Your task to perform on an android device: Open calendar and show me the third week of next month Image 0: 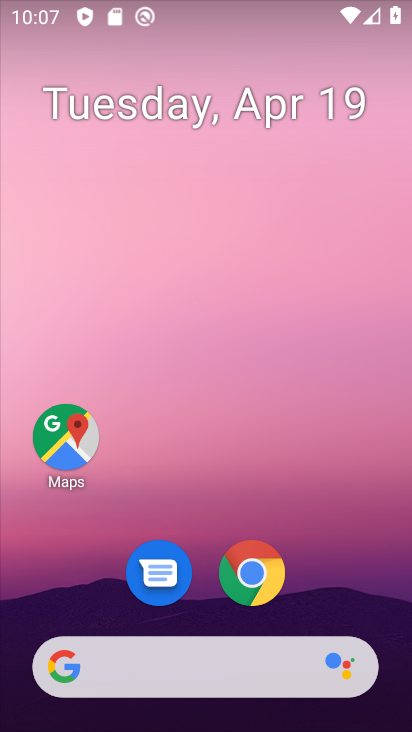
Step 0: drag from (354, 575) to (346, 103)
Your task to perform on an android device: Open calendar and show me the third week of next month Image 1: 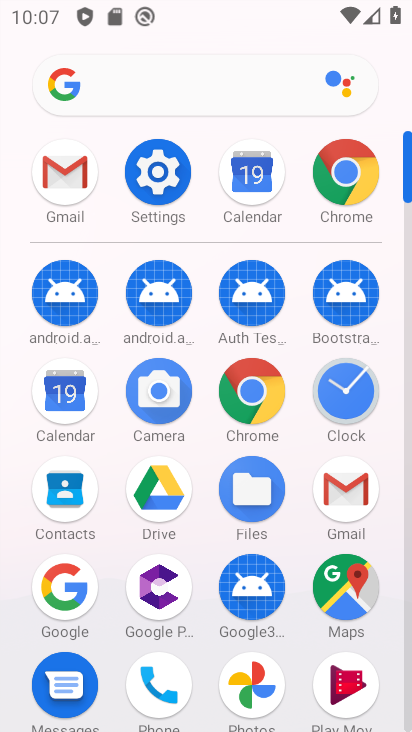
Step 1: click (68, 410)
Your task to perform on an android device: Open calendar and show me the third week of next month Image 2: 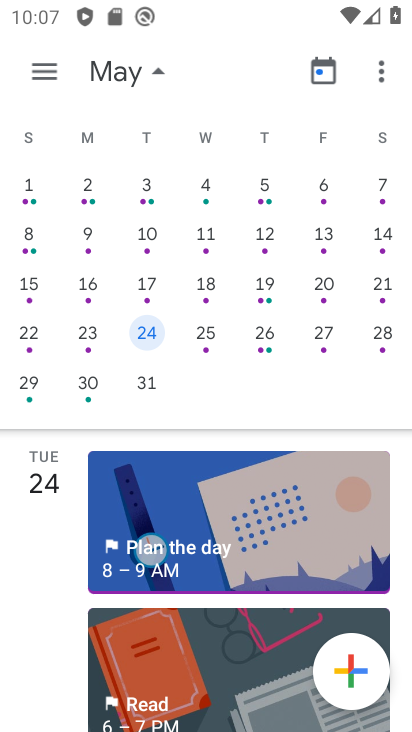
Step 2: click (150, 286)
Your task to perform on an android device: Open calendar and show me the third week of next month Image 3: 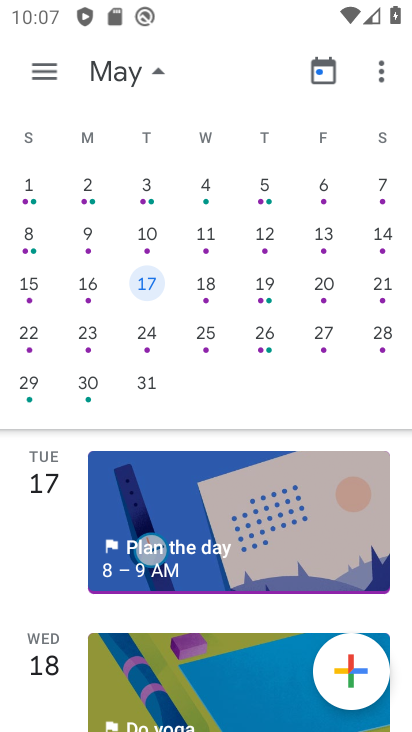
Step 3: task complete